Your task to perform on an android device: Show the shopping cart on target. Search for asus zenbook on target, select the first entry, and add it to the cart. Image 0: 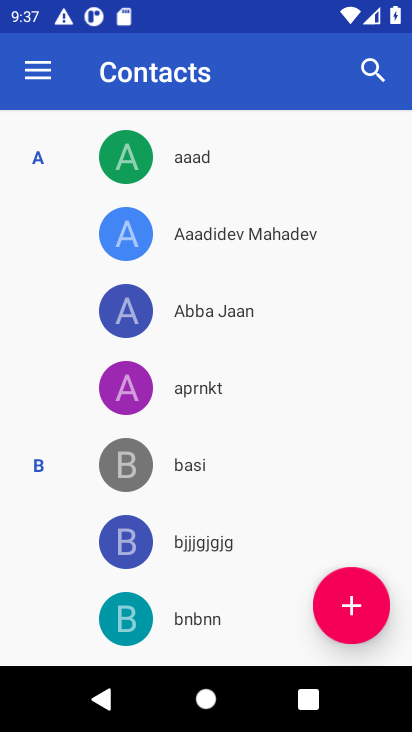
Step 0: press home button
Your task to perform on an android device: Show the shopping cart on target. Search for asus zenbook on target, select the first entry, and add it to the cart. Image 1: 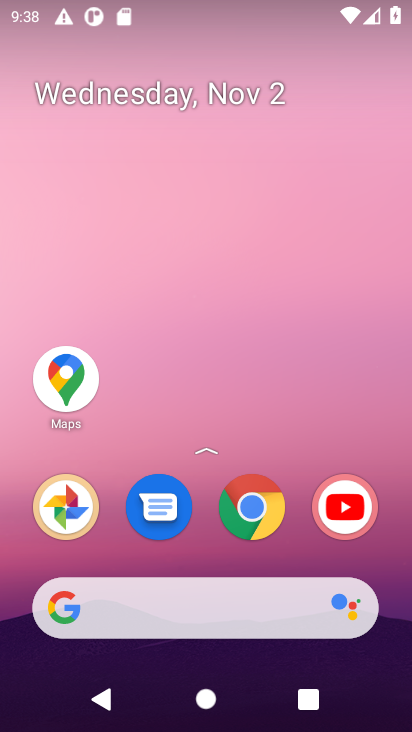
Step 1: click (151, 607)
Your task to perform on an android device: Show the shopping cart on target. Search for asus zenbook on target, select the first entry, and add it to the cart. Image 2: 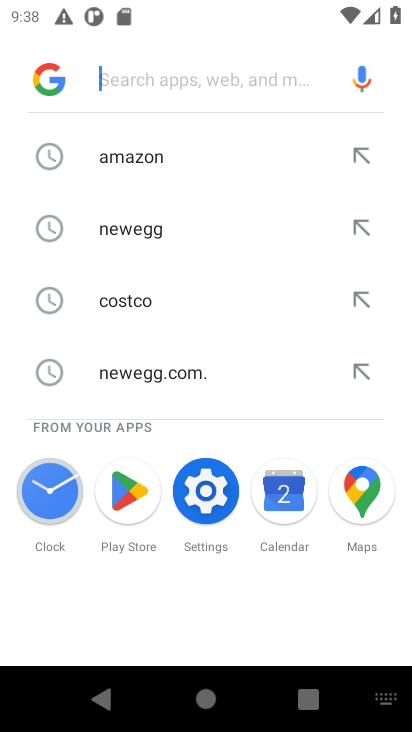
Step 2: type "target"
Your task to perform on an android device: Show the shopping cart on target. Search for asus zenbook on target, select the first entry, and add it to the cart. Image 3: 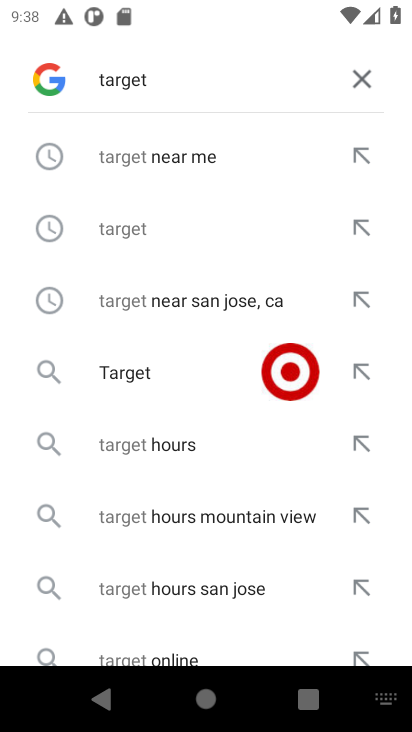
Step 3: click (193, 366)
Your task to perform on an android device: Show the shopping cart on target. Search for asus zenbook on target, select the first entry, and add it to the cart. Image 4: 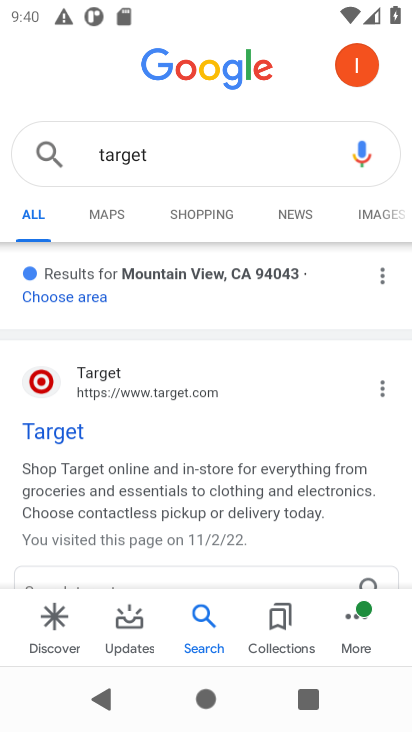
Step 4: click (88, 425)
Your task to perform on an android device: Show the shopping cart on target. Search for asus zenbook on target, select the first entry, and add it to the cart. Image 5: 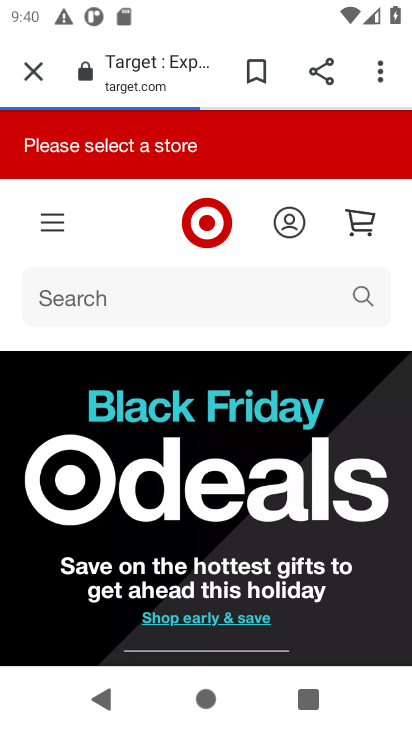
Step 5: click (131, 296)
Your task to perform on an android device: Show the shopping cart on target. Search for asus zenbook on target, select the first entry, and add it to the cart. Image 6: 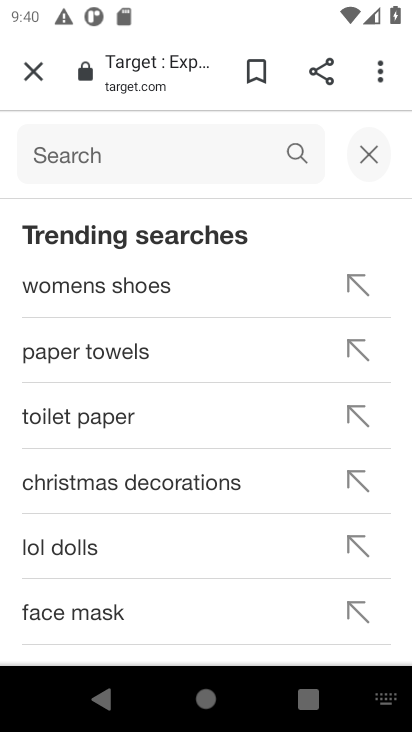
Step 6: type "asus zenbook"
Your task to perform on an android device: Show the shopping cart on target. Search for asus zenbook on target, select the first entry, and add it to the cart. Image 7: 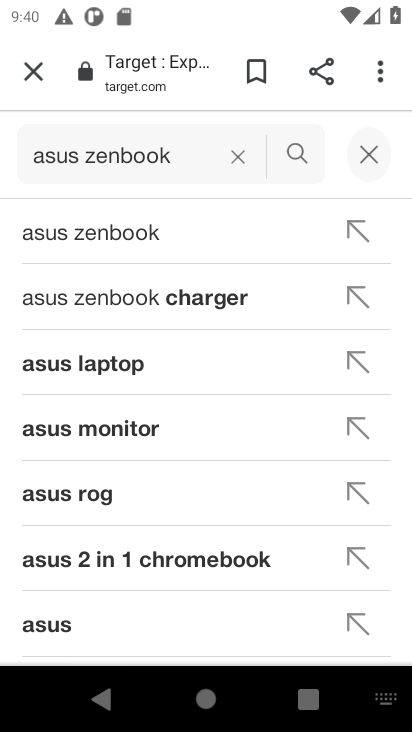
Step 7: click (140, 249)
Your task to perform on an android device: Show the shopping cart on target. Search for asus zenbook on target, select the first entry, and add it to the cart. Image 8: 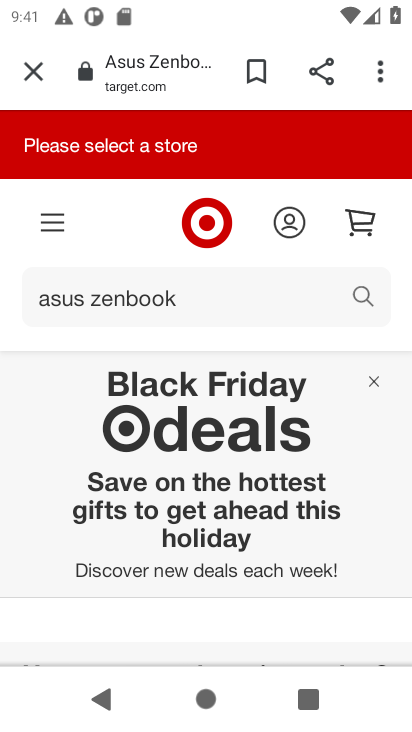
Step 8: task complete